Your task to perform on an android device: turn vacation reply on in the gmail app Image 0: 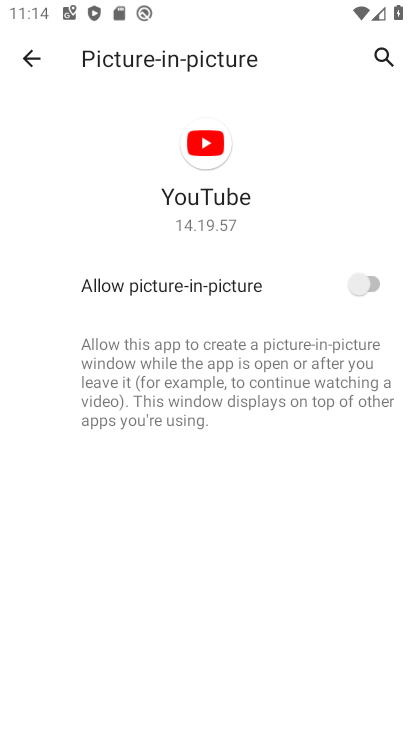
Step 0: press home button
Your task to perform on an android device: turn vacation reply on in the gmail app Image 1: 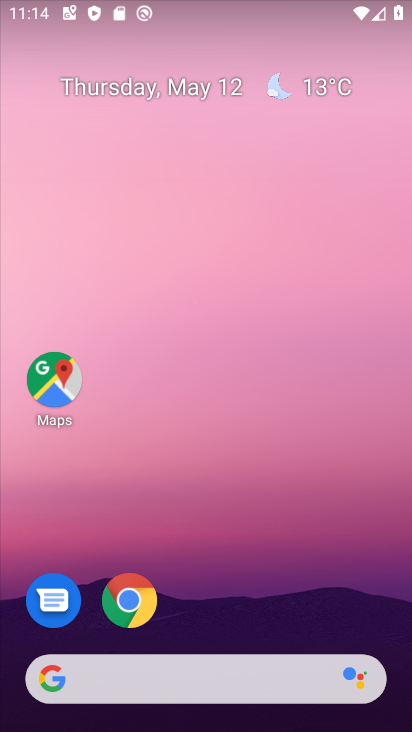
Step 1: drag from (380, 631) to (321, 130)
Your task to perform on an android device: turn vacation reply on in the gmail app Image 2: 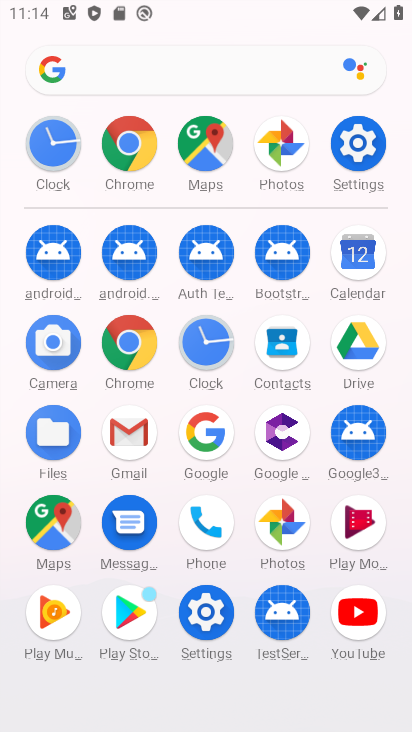
Step 2: click (126, 430)
Your task to perform on an android device: turn vacation reply on in the gmail app Image 3: 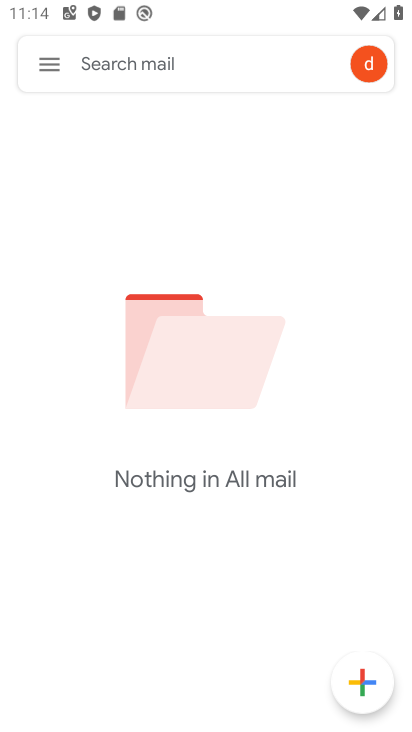
Step 3: click (47, 62)
Your task to perform on an android device: turn vacation reply on in the gmail app Image 4: 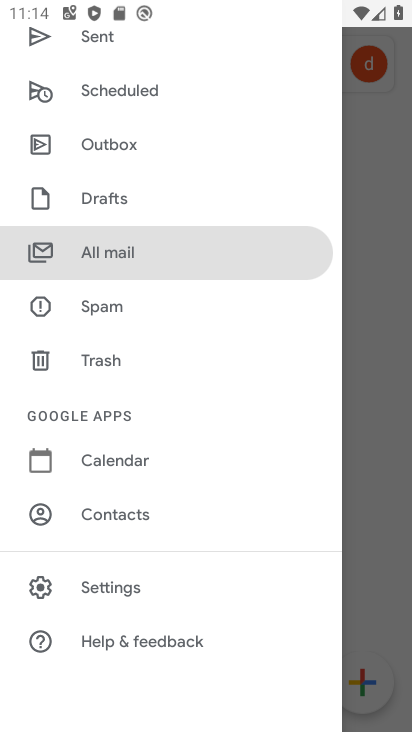
Step 4: click (122, 591)
Your task to perform on an android device: turn vacation reply on in the gmail app Image 5: 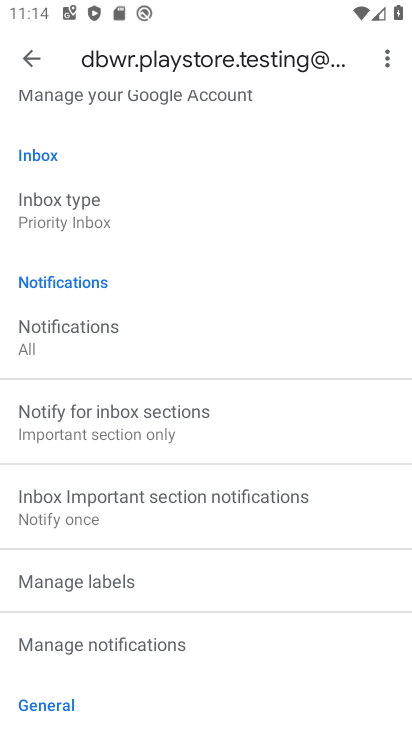
Step 5: drag from (302, 619) to (282, 258)
Your task to perform on an android device: turn vacation reply on in the gmail app Image 6: 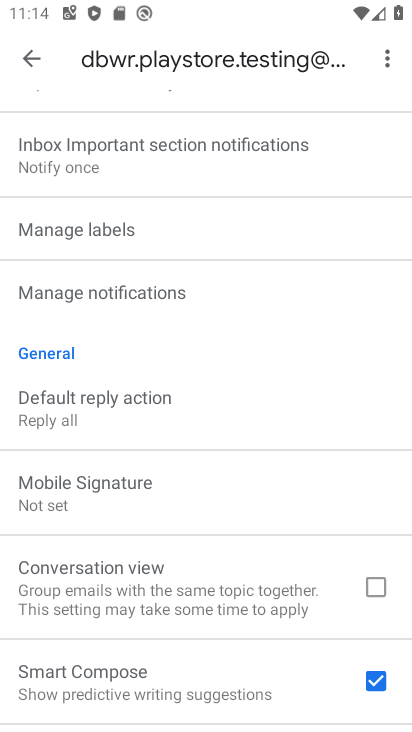
Step 6: drag from (294, 575) to (278, 203)
Your task to perform on an android device: turn vacation reply on in the gmail app Image 7: 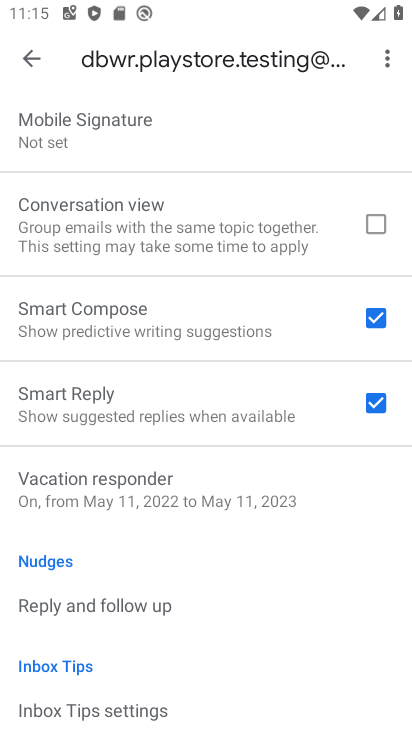
Step 7: click (146, 488)
Your task to perform on an android device: turn vacation reply on in the gmail app Image 8: 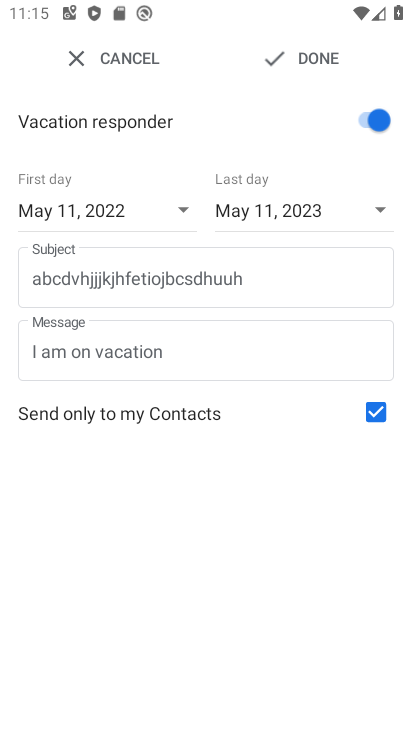
Step 8: task complete